Your task to perform on an android device: Open Reddit.com Image 0: 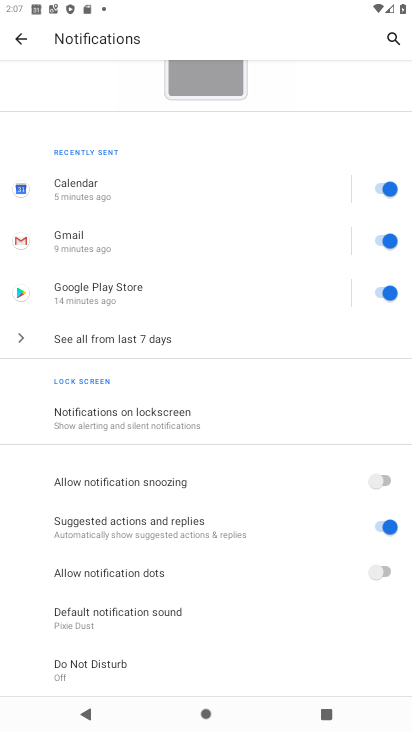
Step 0: press home button
Your task to perform on an android device: Open Reddit.com Image 1: 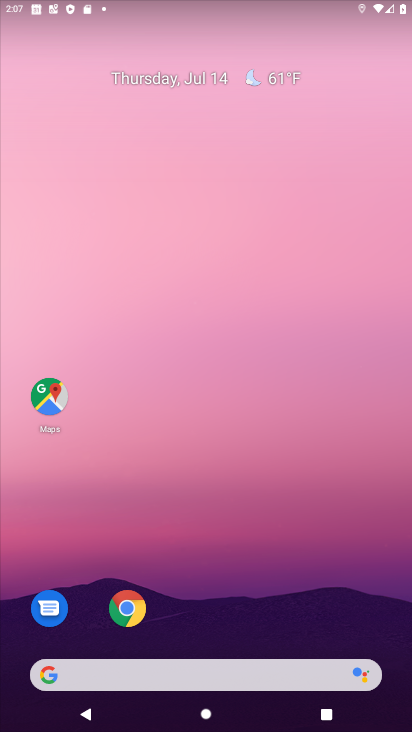
Step 1: click (128, 609)
Your task to perform on an android device: Open Reddit.com Image 2: 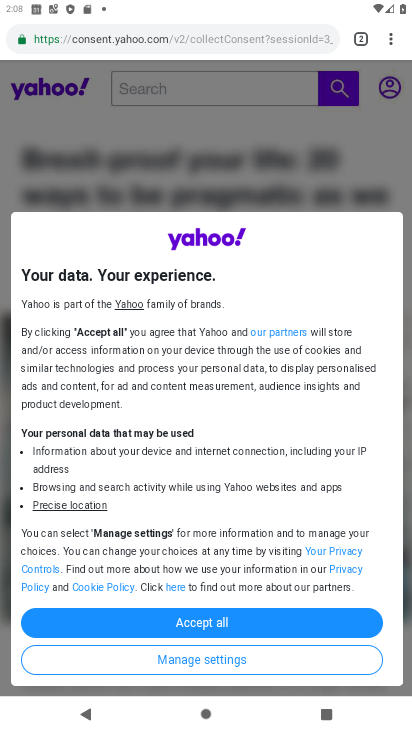
Step 2: click (299, 34)
Your task to perform on an android device: Open Reddit.com Image 3: 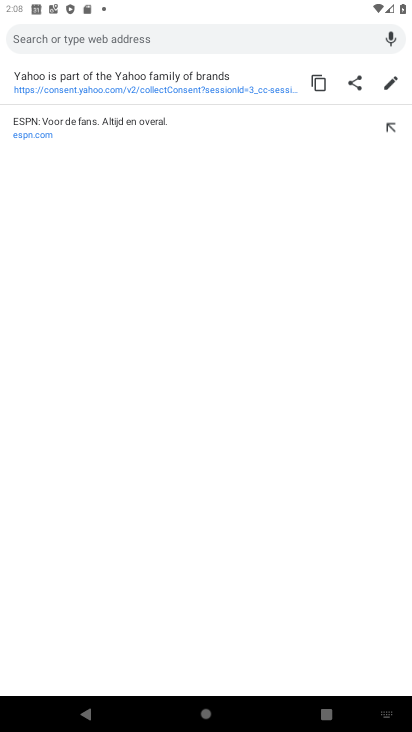
Step 3: type "Reddit.com"
Your task to perform on an android device: Open Reddit.com Image 4: 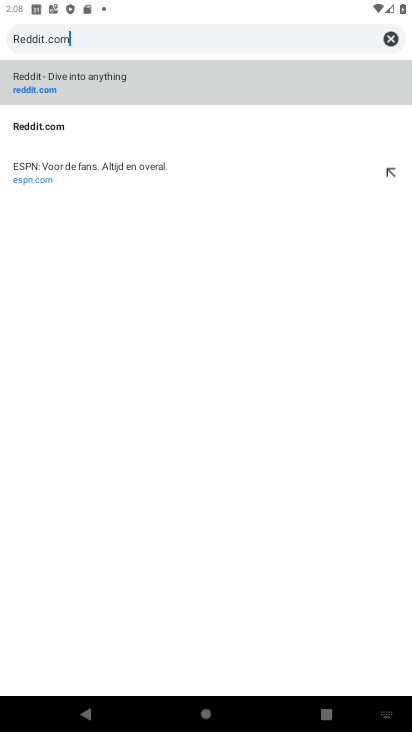
Step 4: type ""
Your task to perform on an android device: Open Reddit.com Image 5: 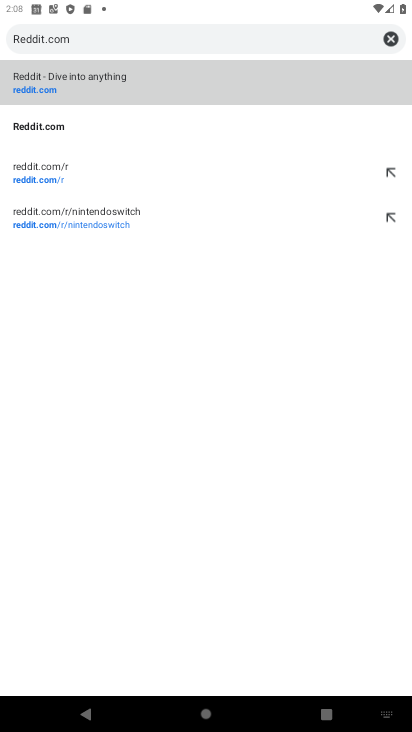
Step 5: click (65, 128)
Your task to perform on an android device: Open Reddit.com Image 6: 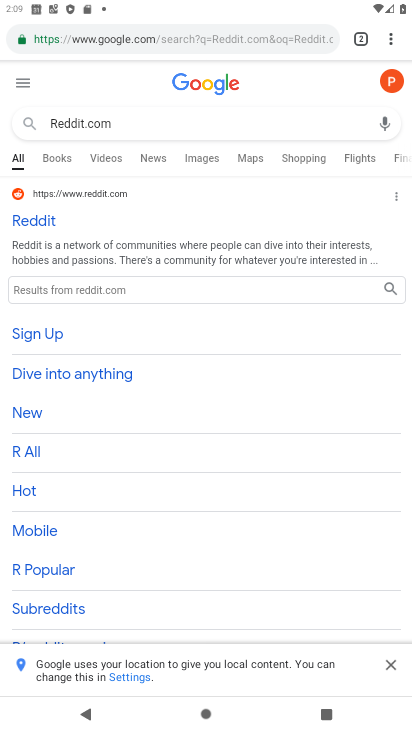
Step 6: click (29, 221)
Your task to perform on an android device: Open Reddit.com Image 7: 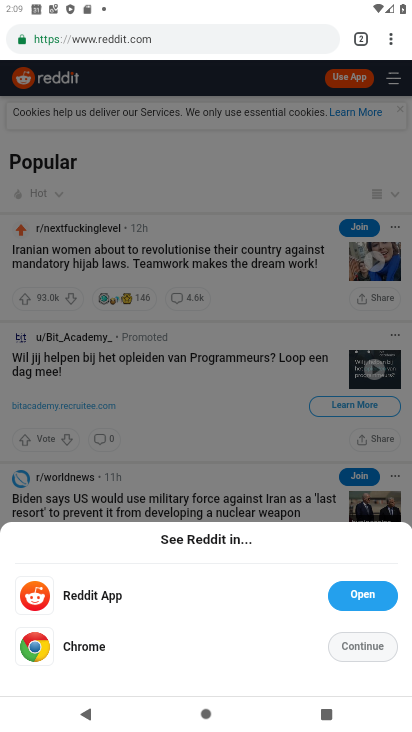
Step 7: click (361, 639)
Your task to perform on an android device: Open Reddit.com Image 8: 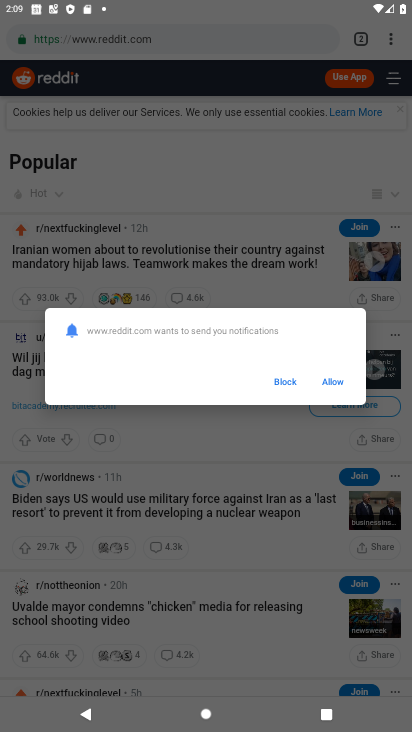
Step 8: click (338, 380)
Your task to perform on an android device: Open Reddit.com Image 9: 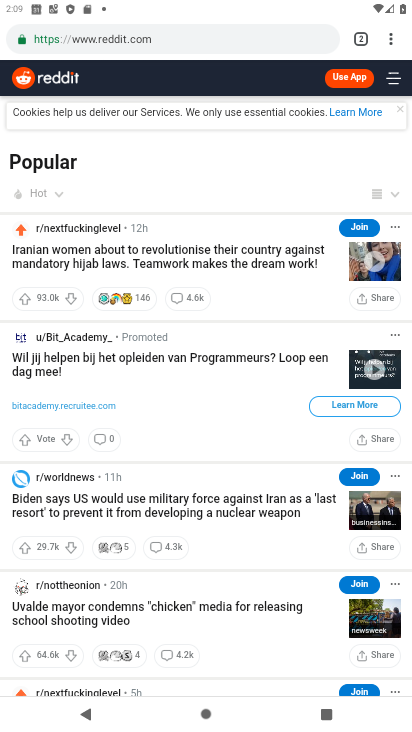
Step 9: task complete